Your task to perform on an android device: open a bookmark in the chrome app Image 0: 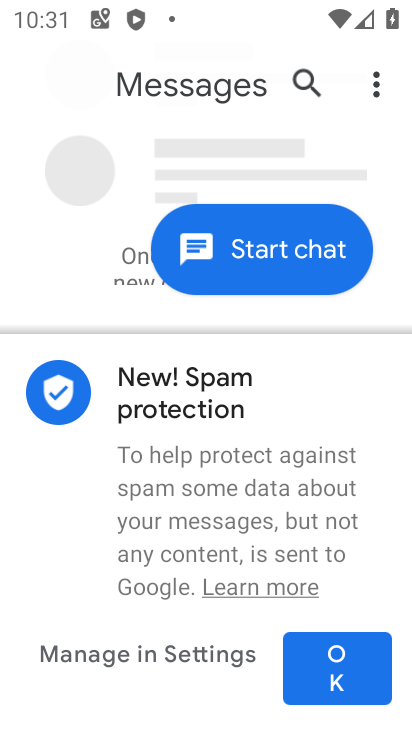
Step 0: press back button
Your task to perform on an android device: open a bookmark in the chrome app Image 1: 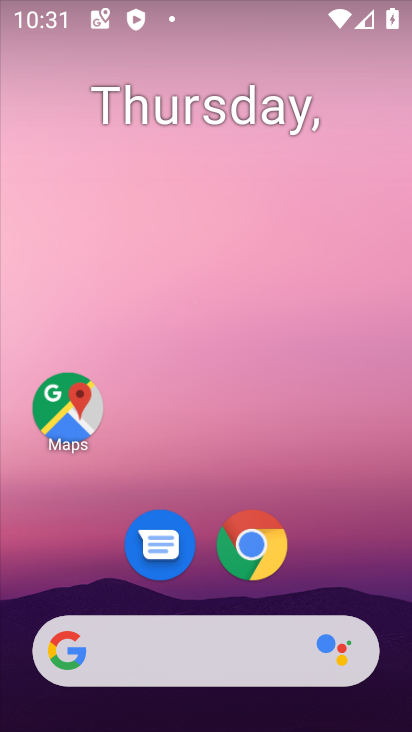
Step 1: click (254, 546)
Your task to perform on an android device: open a bookmark in the chrome app Image 2: 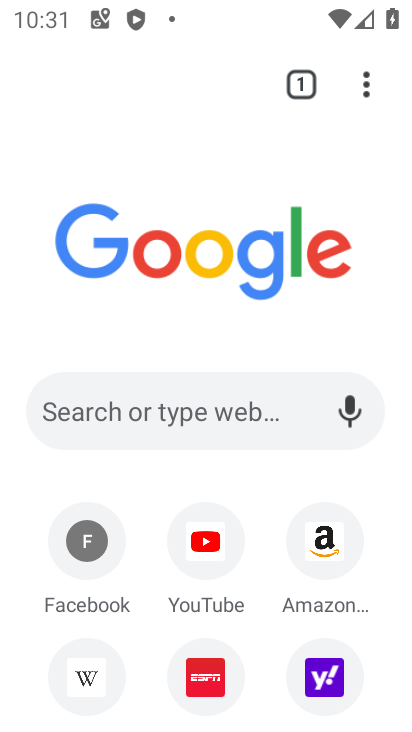
Step 2: click (366, 84)
Your task to perform on an android device: open a bookmark in the chrome app Image 3: 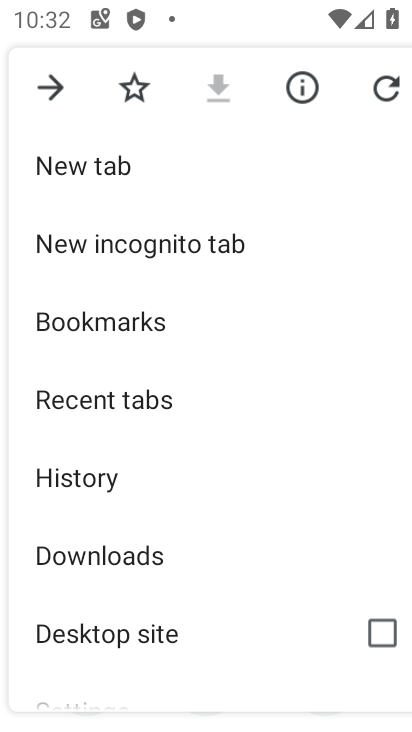
Step 3: drag from (187, 524) to (259, 437)
Your task to perform on an android device: open a bookmark in the chrome app Image 4: 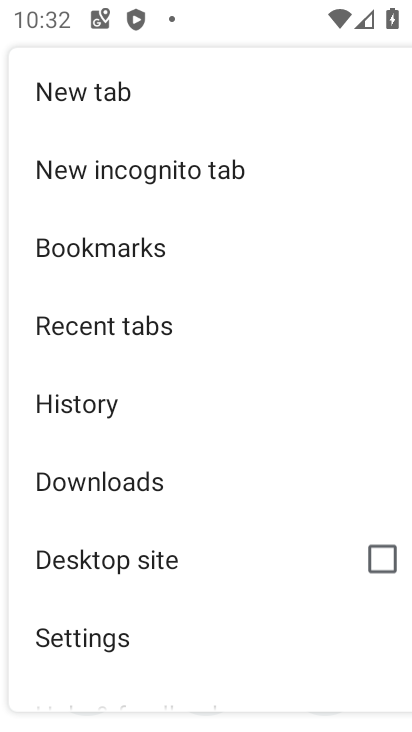
Step 4: drag from (163, 596) to (256, 465)
Your task to perform on an android device: open a bookmark in the chrome app Image 5: 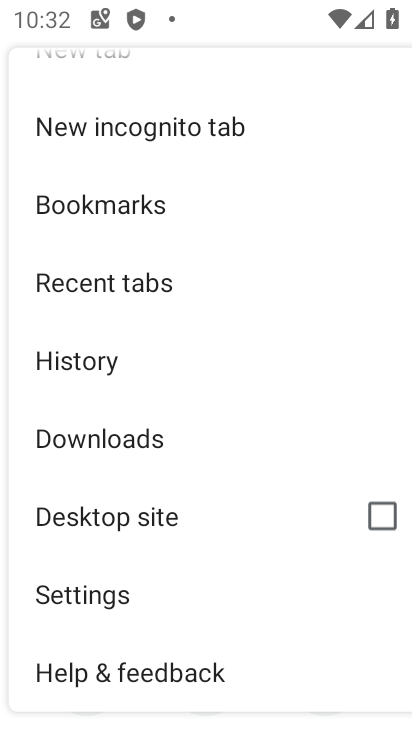
Step 5: click (165, 206)
Your task to perform on an android device: open a bookmark in the chrome app Image 6: 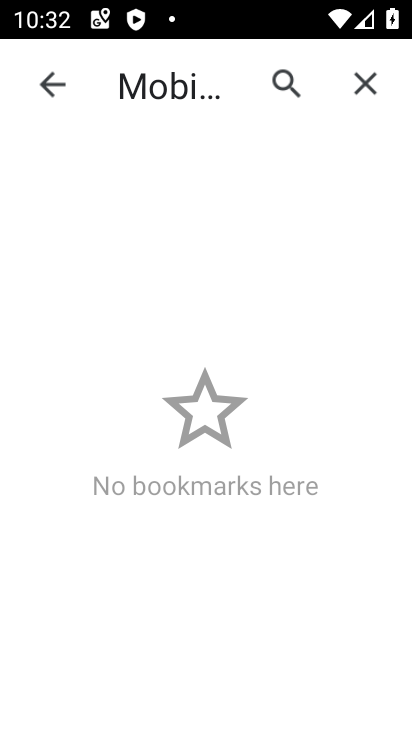
Step 6: task complete